Your task to perform on an android device: open sync settings in chrome Image 0: 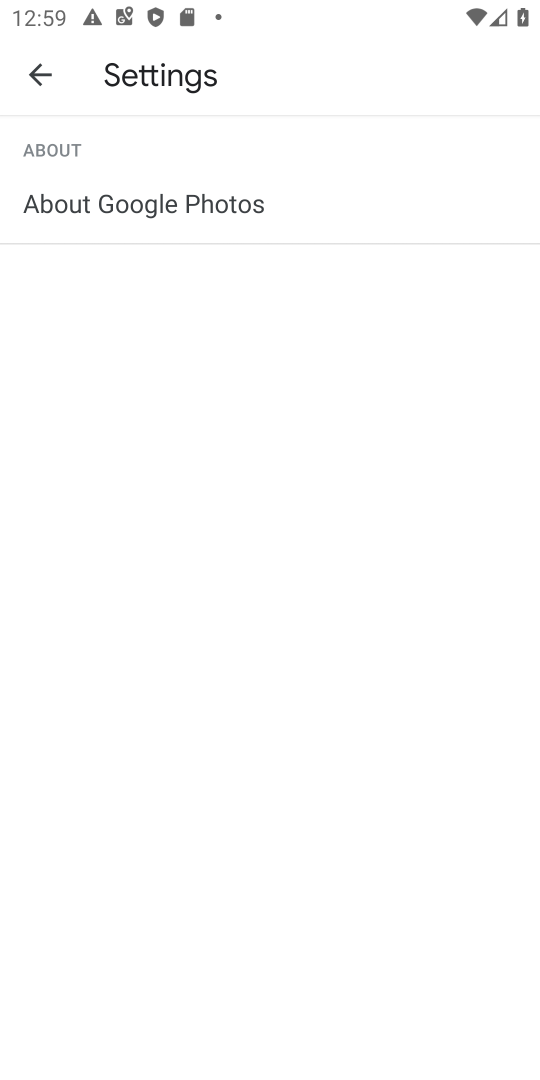
Step 0: press home button
Your task to perform on an android device: open sync settings in chrome Image 1: 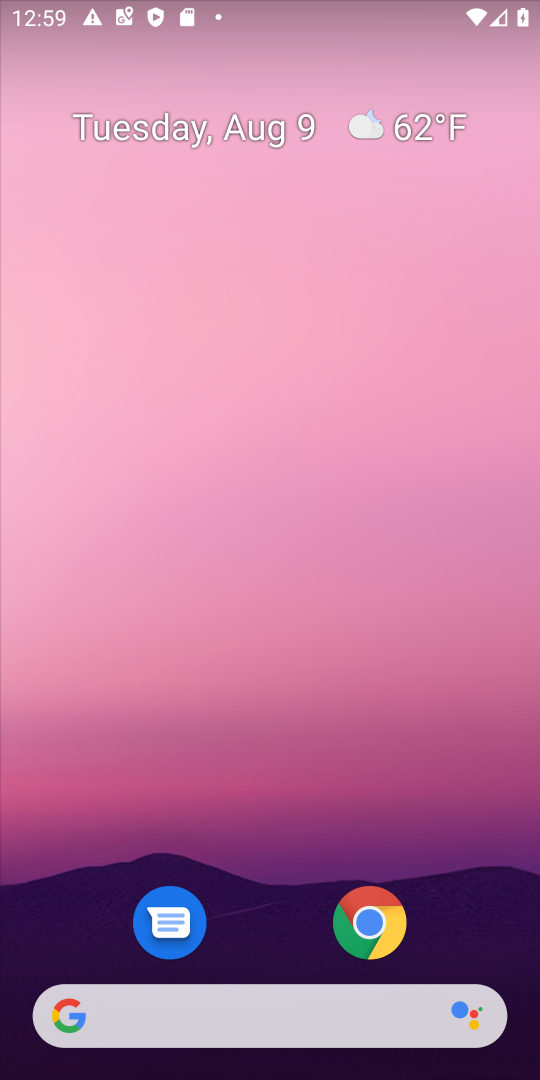
Step 1: click (401, 903)
Your task to perform on an android device: open sync settings in chrome Image 2: 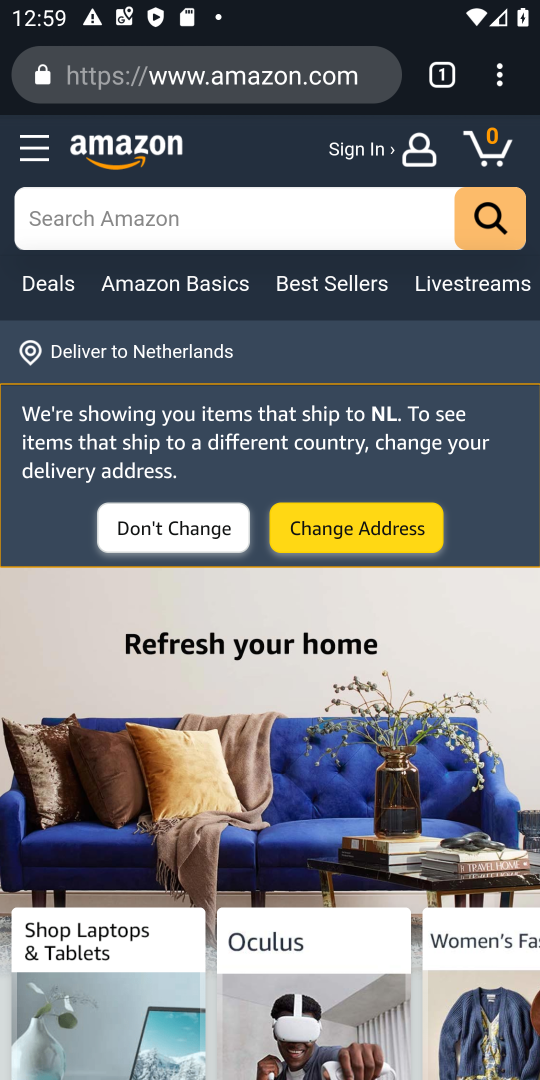
Step 2: click (501, 70)
Your task to perform on an android device: open sync settings in chrome Image 3: 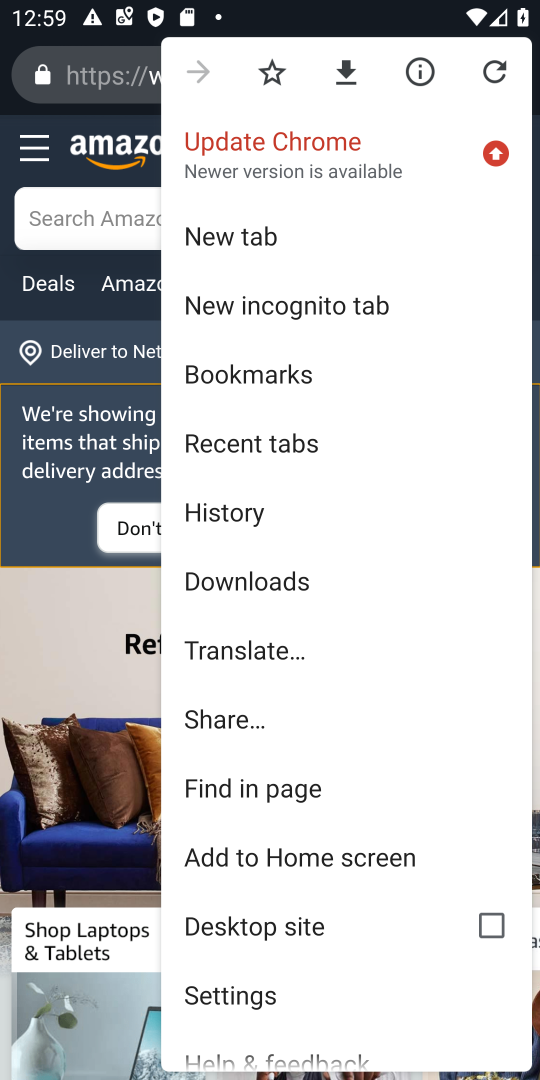
Step 3: click (215, 986)
Your task to perform on an android device: open sync settings in chrome Image 4: 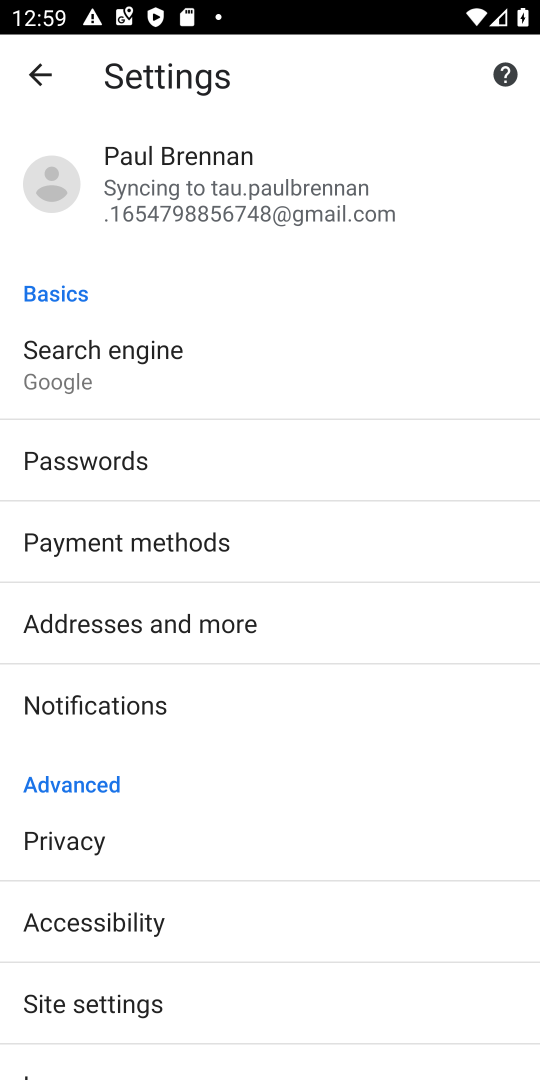
Step 4: click (160, 202)
Your task to perform on an android device: open sync settings in chrome Image 5: 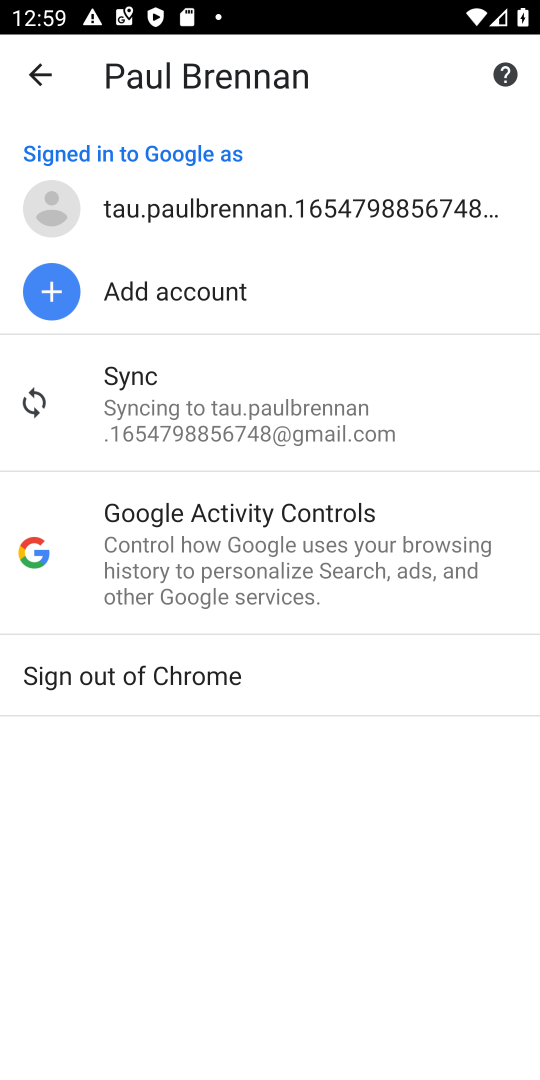
Step 5: click (157, 357)
Your task to perform on an android device: open sync settings in chrome Image 6: 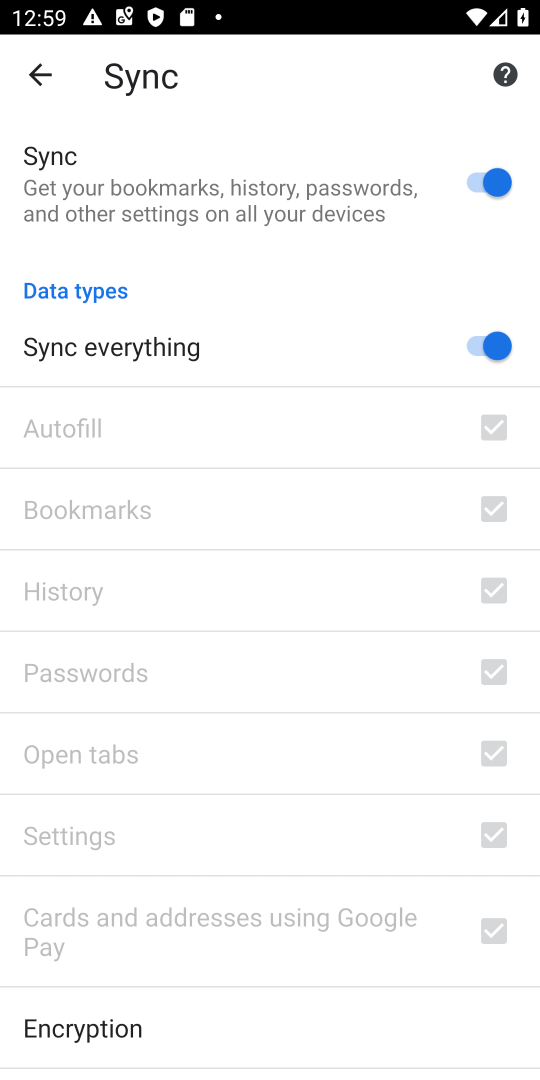
Step 6: task complete